Your task to perform on an android device: Open the phone app and click the voicemail tab. Image 0: 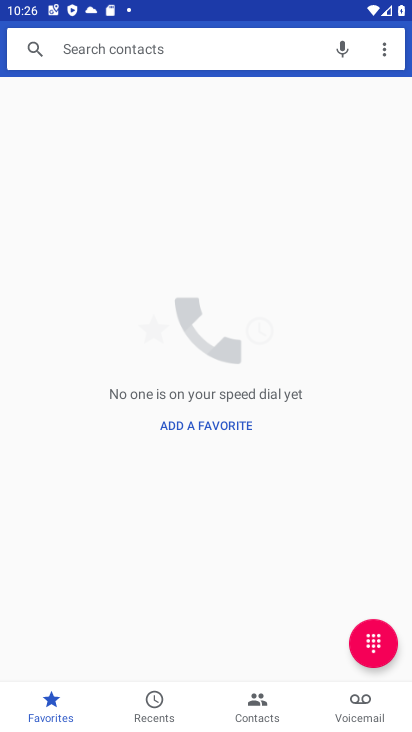
Step 0: press home button
Your task to perform on an android device: Open the phone app and click the voicemail tab. Image 1: 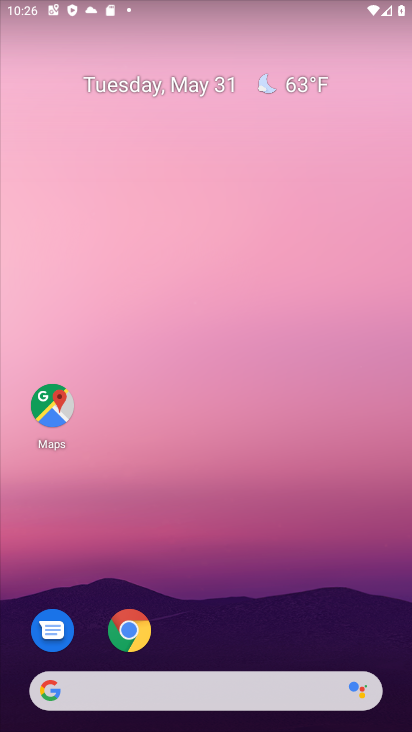
Step 1: drag from (230, 589) to (280, 124)
Your task to perform on an android device: Open the phone app and click the voicemail tab. Image 2: 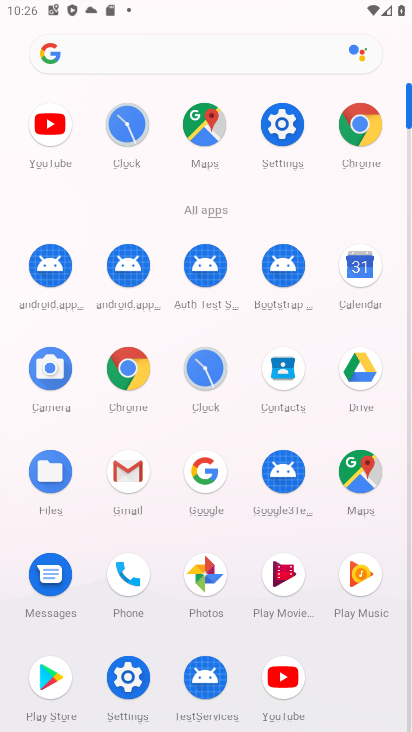
Step 2: click (121, 577)
Your task to perform on an android device: Open the phone app and click the voicemail tab. Image 3: 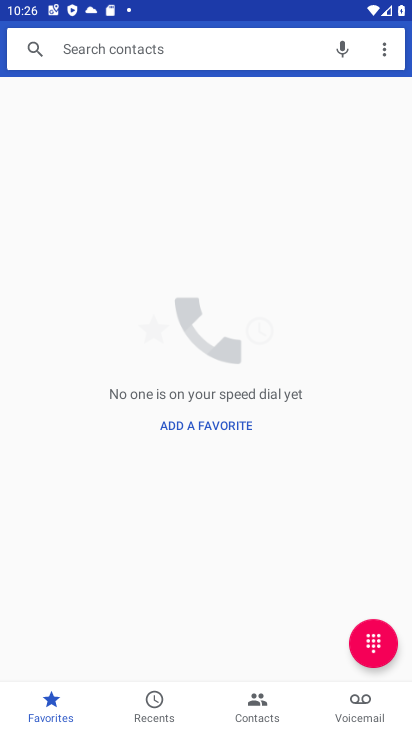
Step 3: click (342, 725)
Your task to perform on an android device: Open the phone app and click the voicemail tab. Image 4: 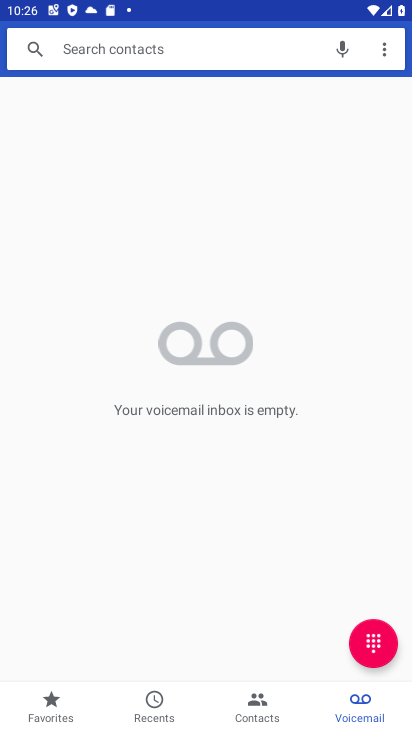
Step 4: task complete